Your task to perform on an android device: remove spam from my inbox in the gmail app Image 0: 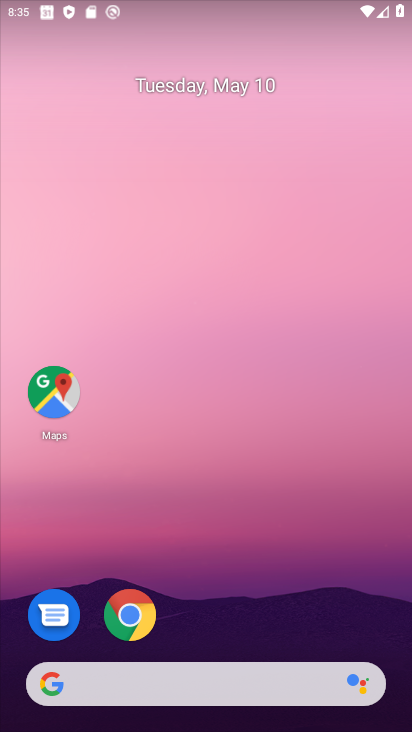
Step 0: click (186, 157)
Your task to perform on an android device: remove spam from my inbox in the gmail app Image 1: 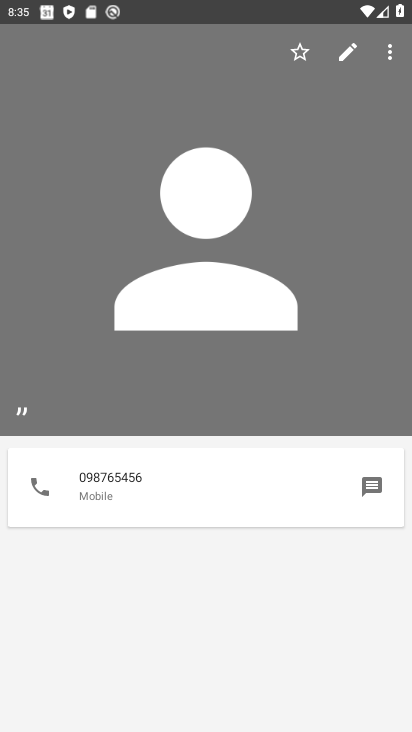
Step 1: press home button
Your task to perform on an android device: remove spam from my inbox in the gmail app Image 2: 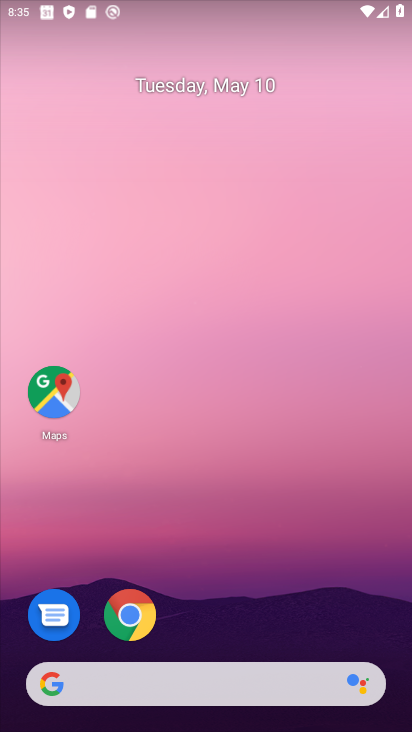
Step 2: drag from (215, 645) to (256, 22)
Your task to perform on an android device: remove spam from my inbox in the gmail app Image 3: 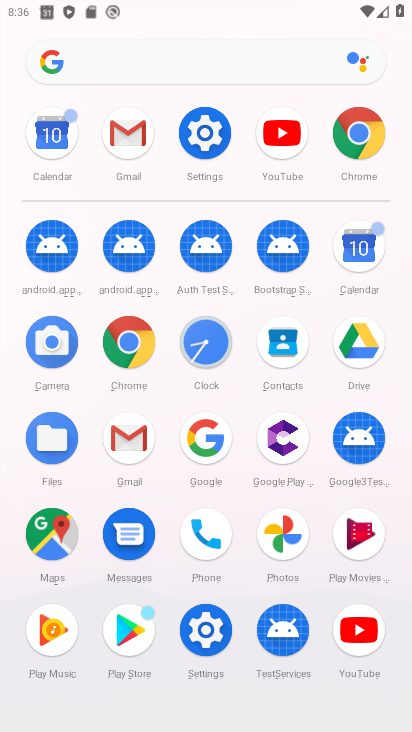
Step 3: click (146, 427)
Your task to perform on an android device: remove spam from my inbox in the gmail app Image 4: 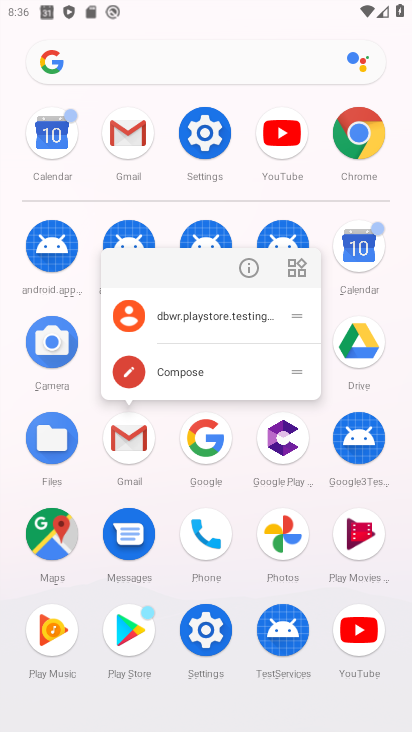
Step 4: click (255, 262)
Your task to perform on an android device: remove spam from my inbox in the gmail app Image 5: 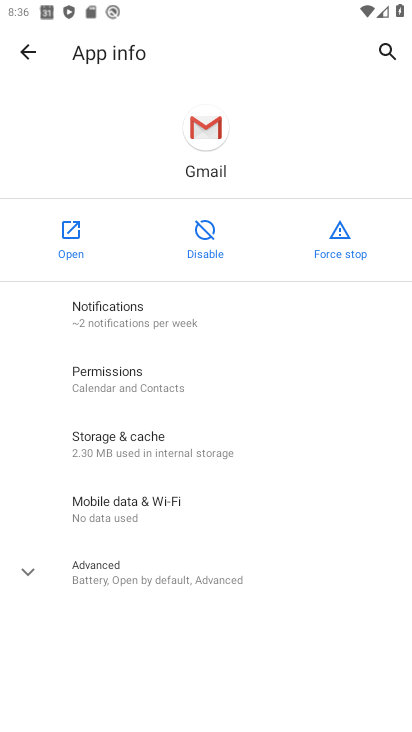
Step 5: click (101, 227)
Your task to perform on an android device: remove spam from my inbox in the gmail app Image 6: 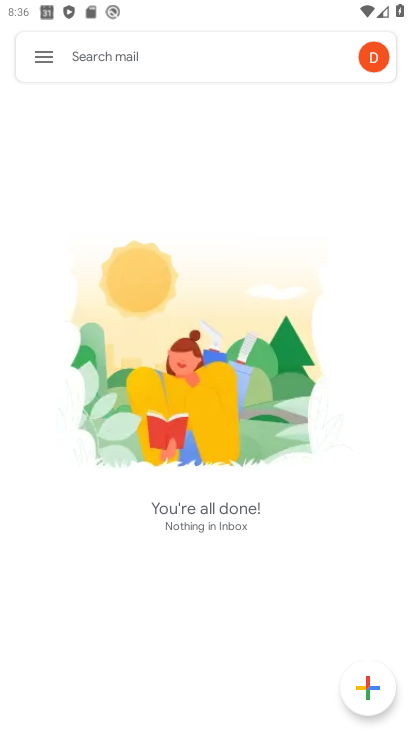
Step 6: click (36, 52)
Your task to perform on an android device: remove spam from my inbox in the gmail app Image 7: 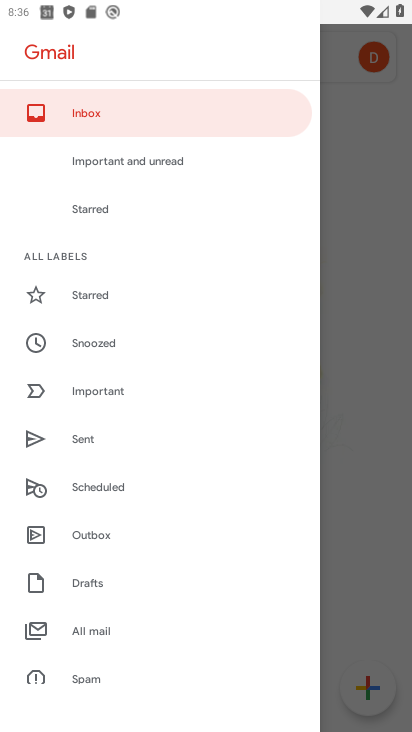
Step 7: drag from (116, 568) to (190, 233)
Your task to perform on an android device: remove spam from my inbox in the gmail app Image 8: 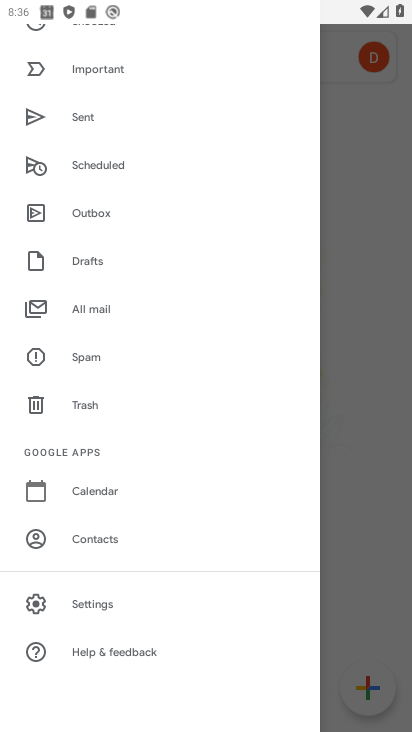
Step 8: click (78, 346)
Your task to perform on an android device: remove spam from my inbox in the gmail app Image 9: 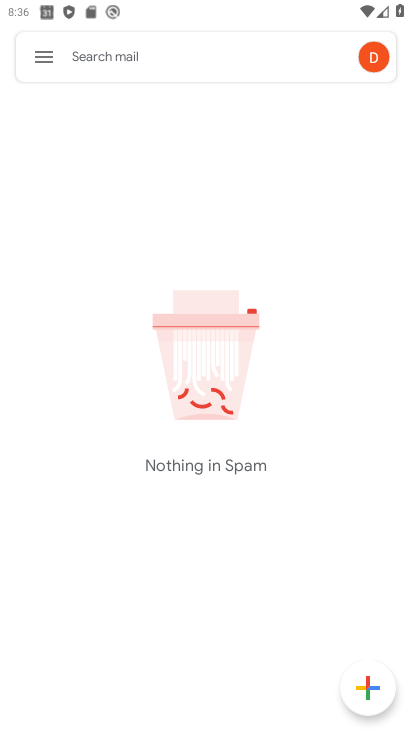
Step 9: task complete